Your task to perform on an android device: Go to display settings Image 0: 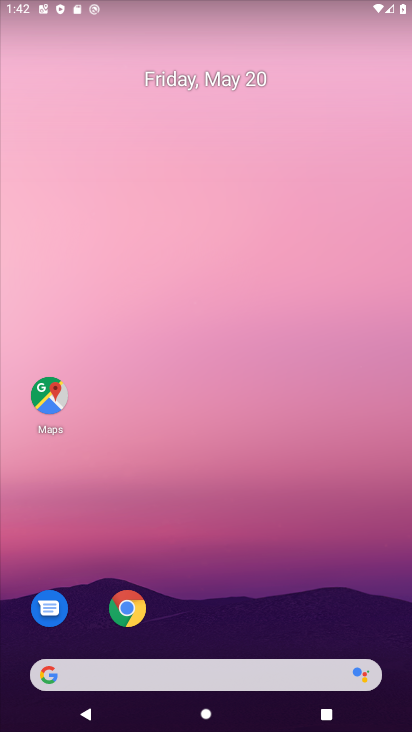
Step 0: drag from (199, 586) to (280, 167)
Your task to perform on an android device: Go to display settings Image 1: 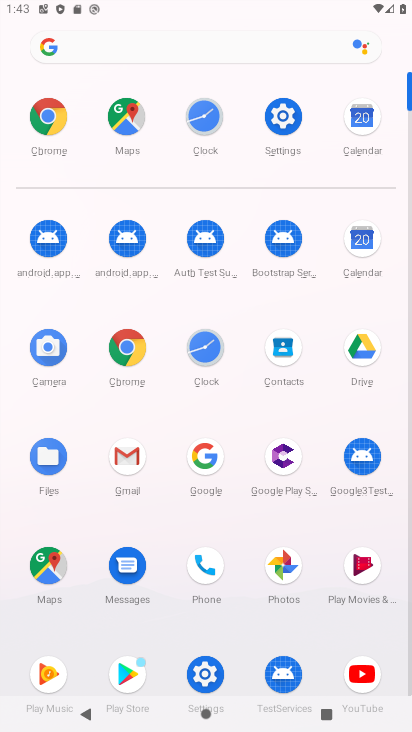
Step 1: click (290, 98)
Your task to perform on an android device: Go to display settings Image 2: 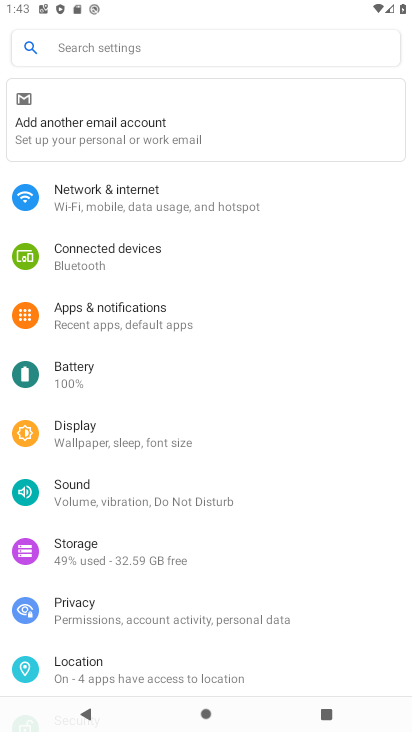
Step 2: click (116, 449)
Your task to perform on an android device: Go to display settings Image 3: 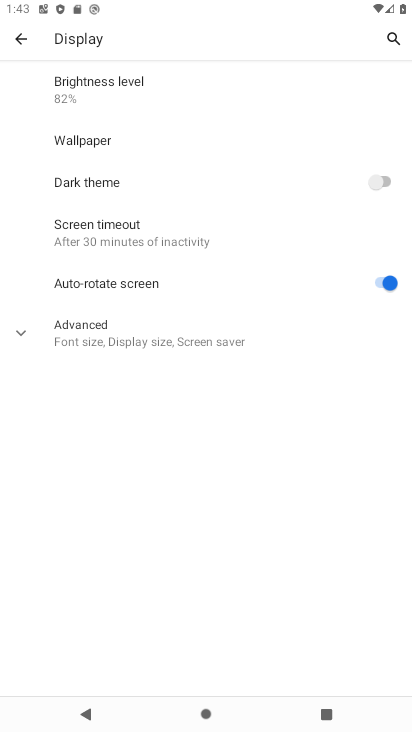
Step 3: task complete